Your task to perform on an android device: Clear the cart on bestbuy. Image 0: 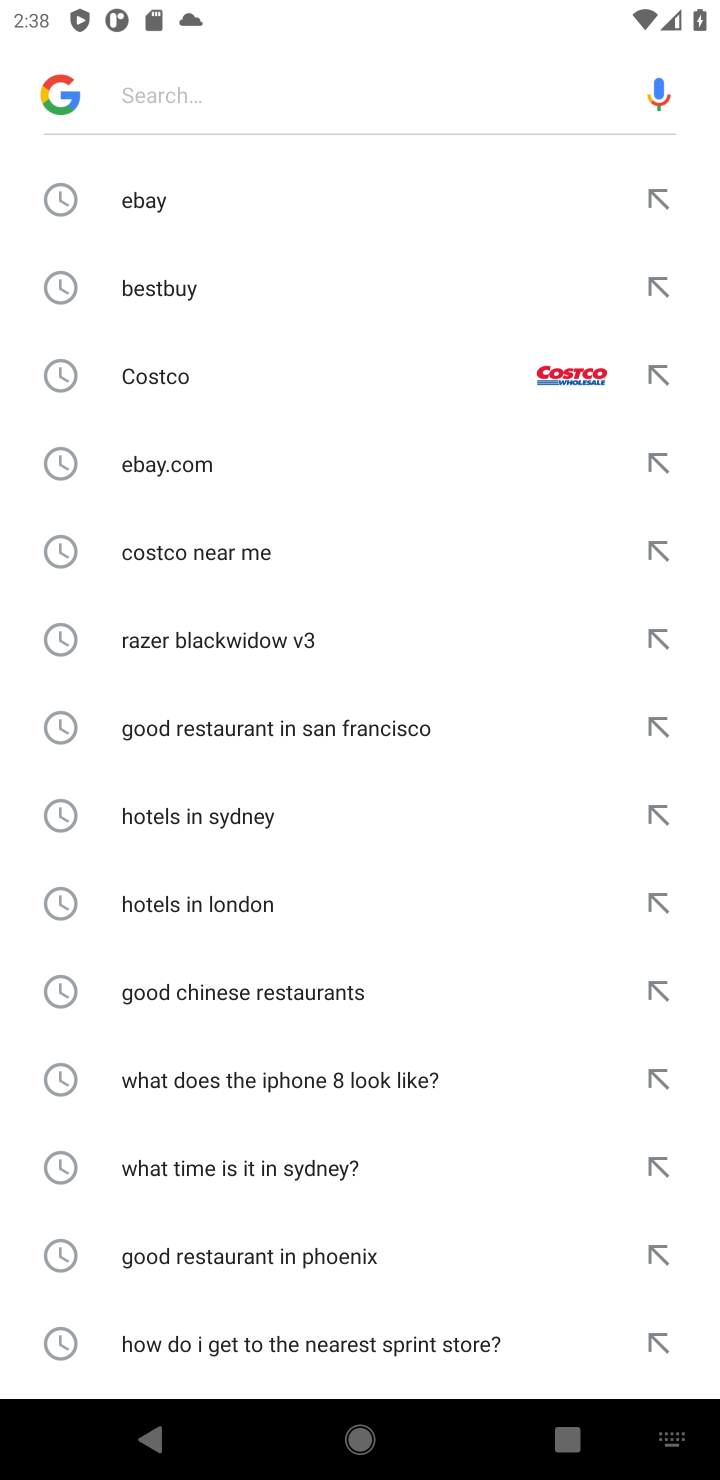
Step 0: press home button
Your task to perform on an android device: Clear the cart on bestbuy. Image 1: 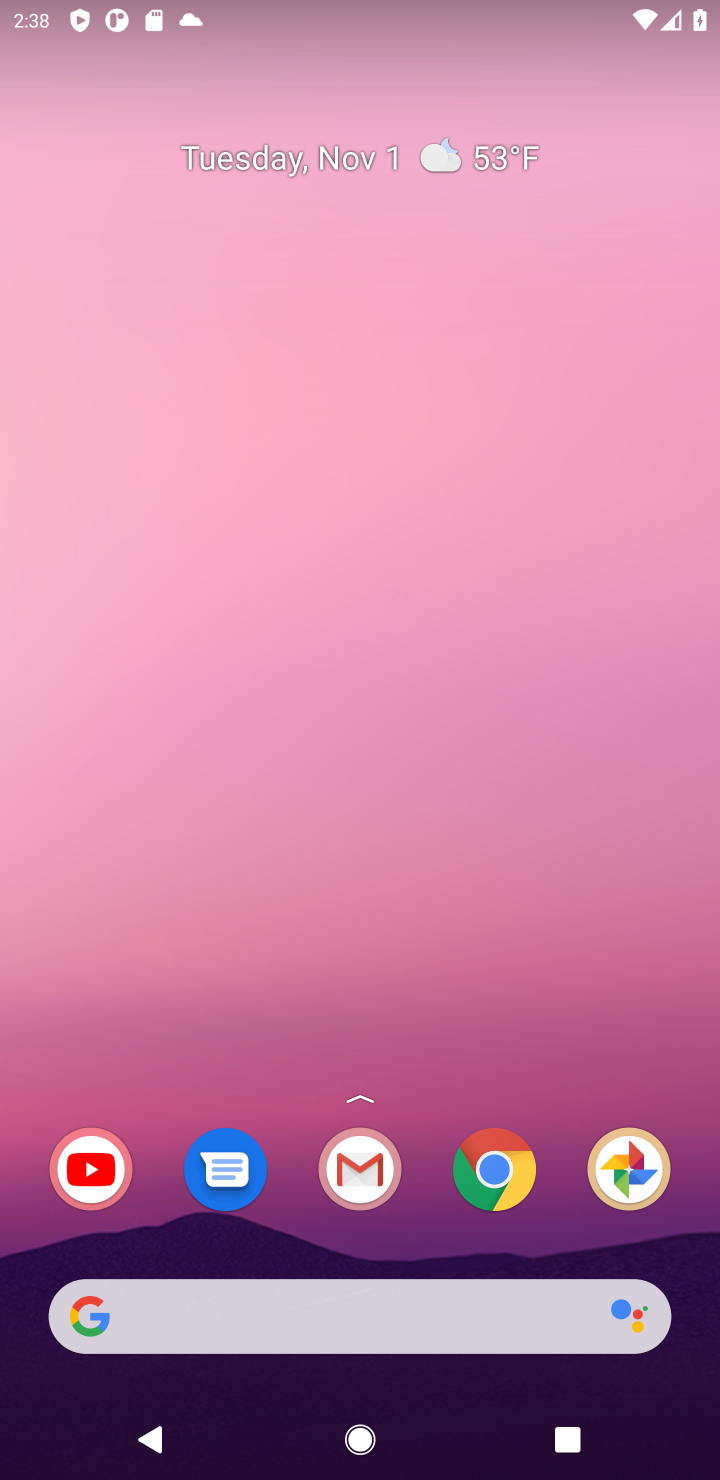
Step 1: click (522, 1181)
Your task to perform on an android device: Clear the cart on bestbuy. Image 2: 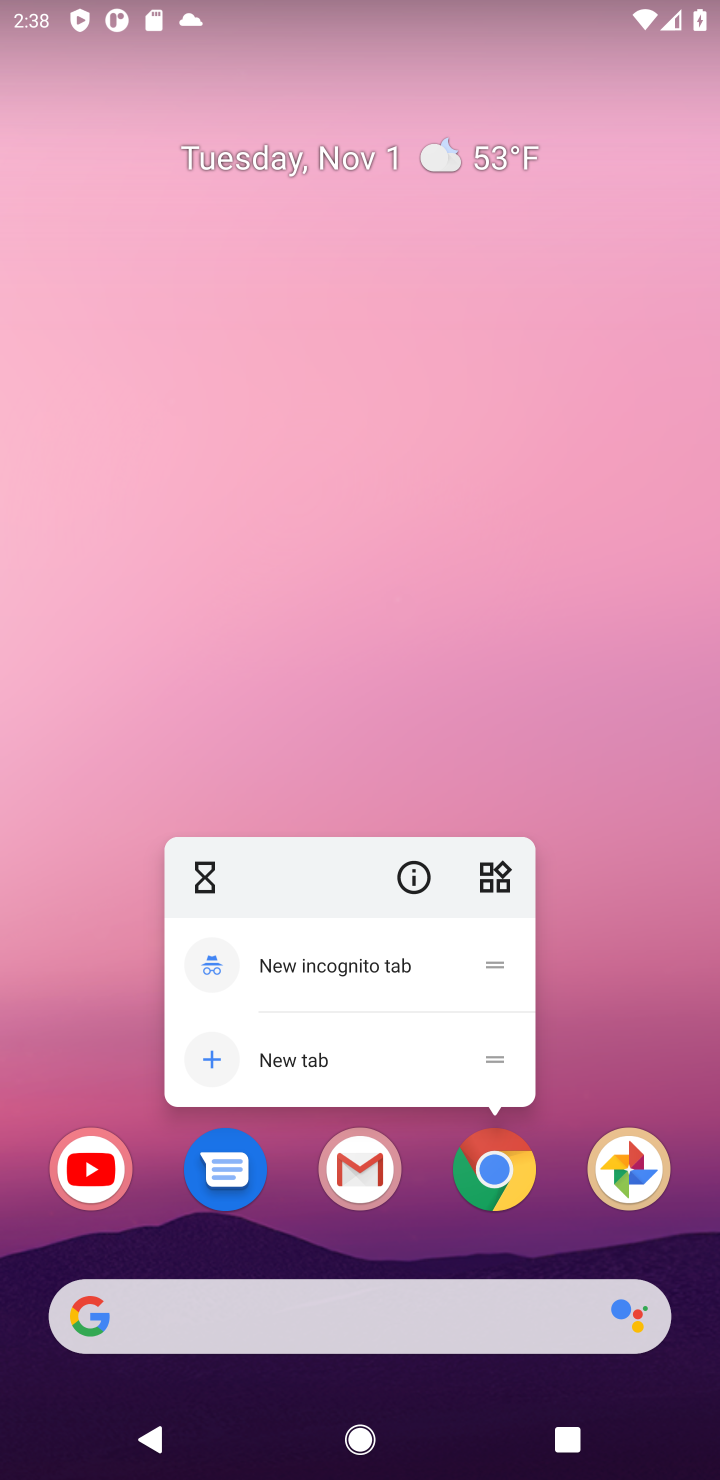
Step 2: click (502, 1177)
Your task to perform on an android device: Clear the cart on bestbuy. Image 3: 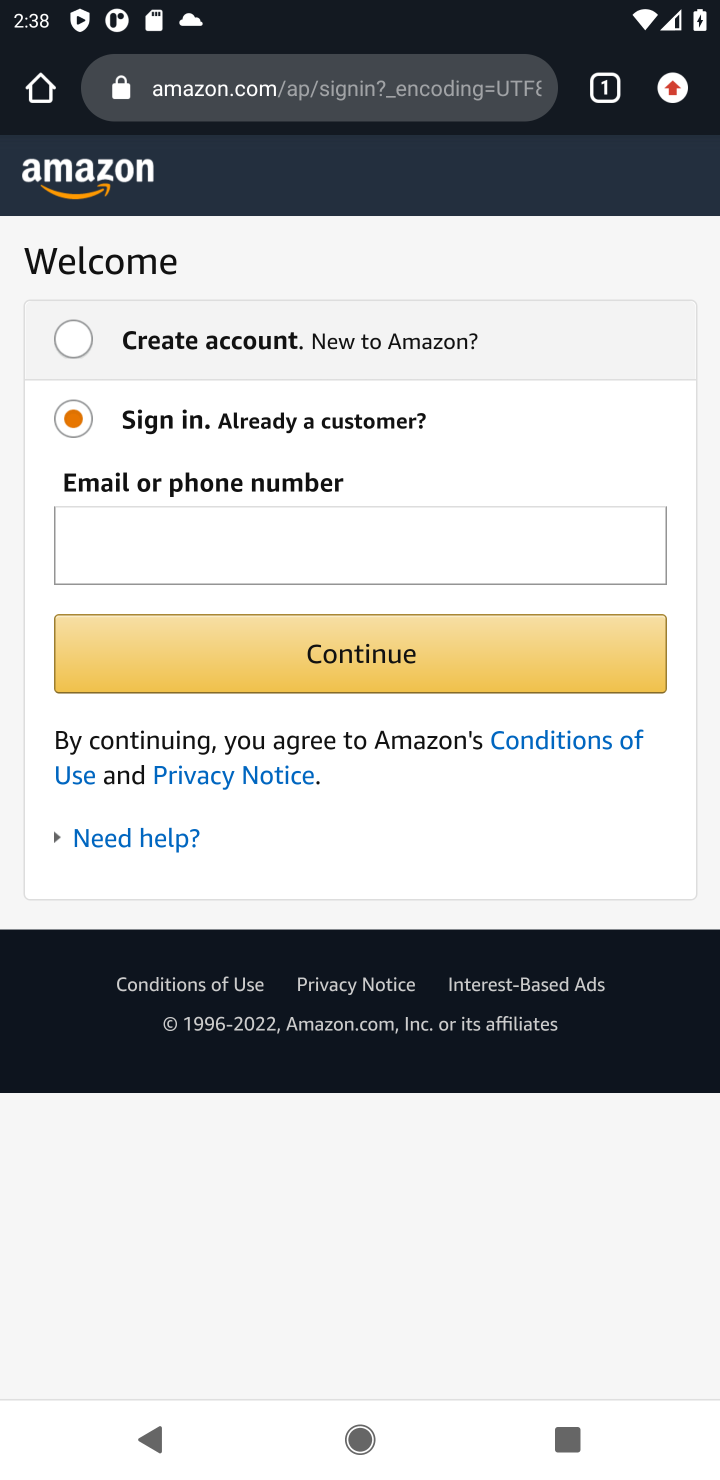
Step 3: click (274, 81)
Your task to perform on an android device: Clear the cart on bestbuy. Image 4: 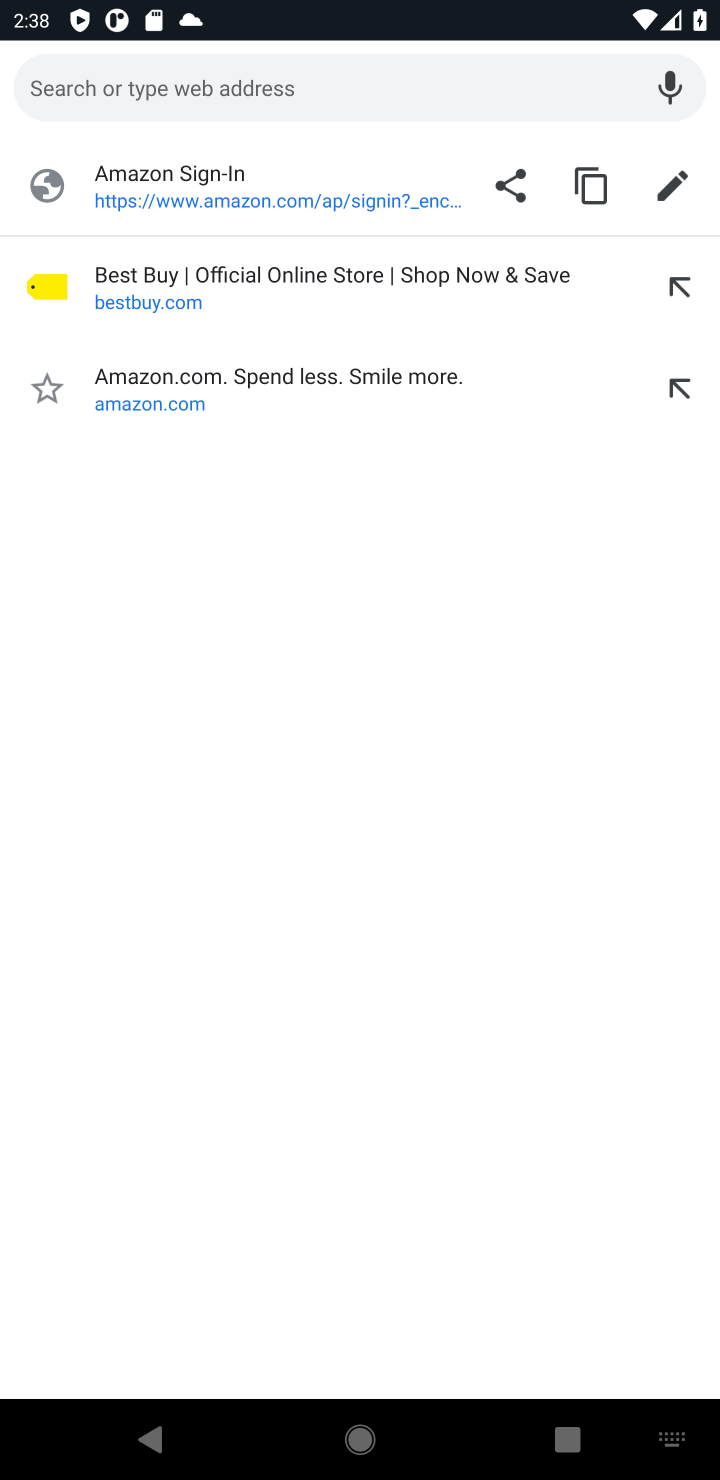
Step 4: click (220, 270)
Your task to perform on an android device: Clear the cart on bestbuy. Image 5: 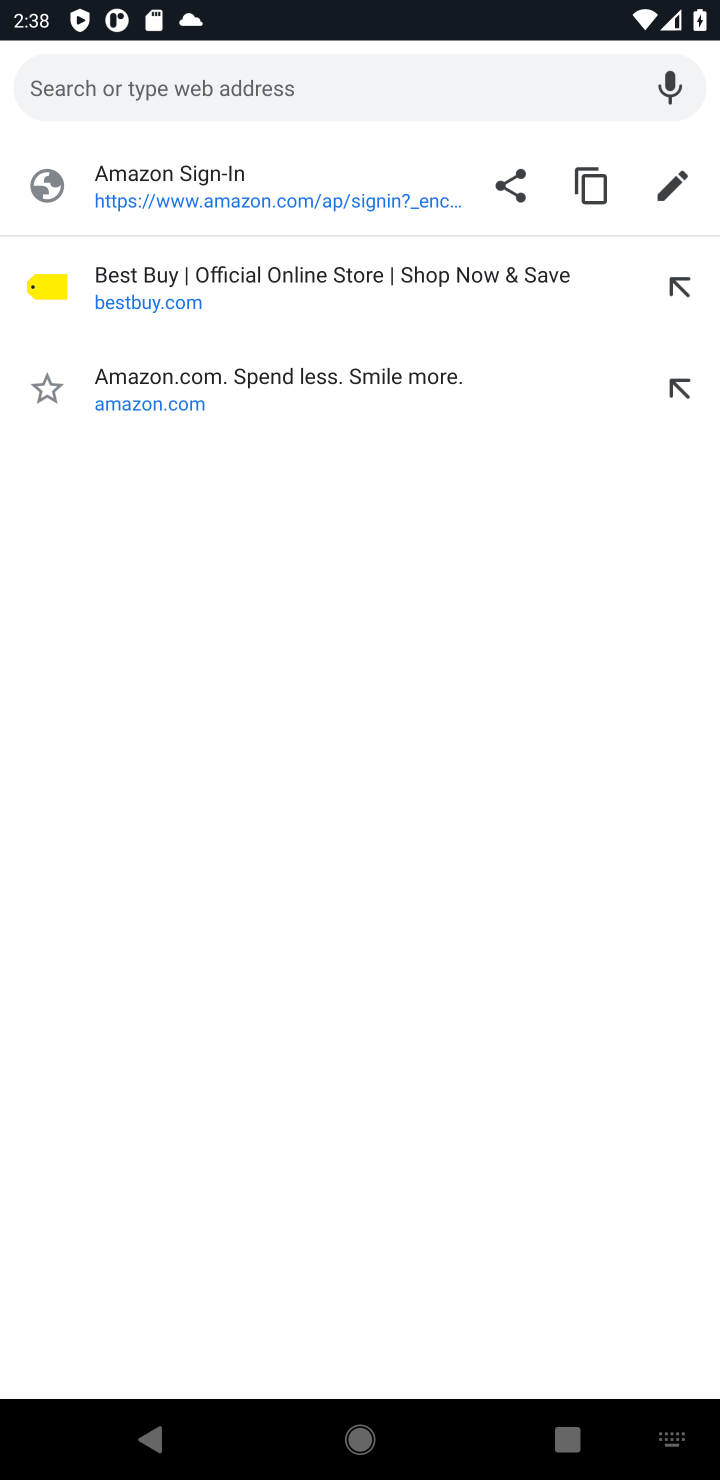
Step 5: click (220, 270)
Your task to perform on an android device: Clear the cart on bestbuy. Image 6: 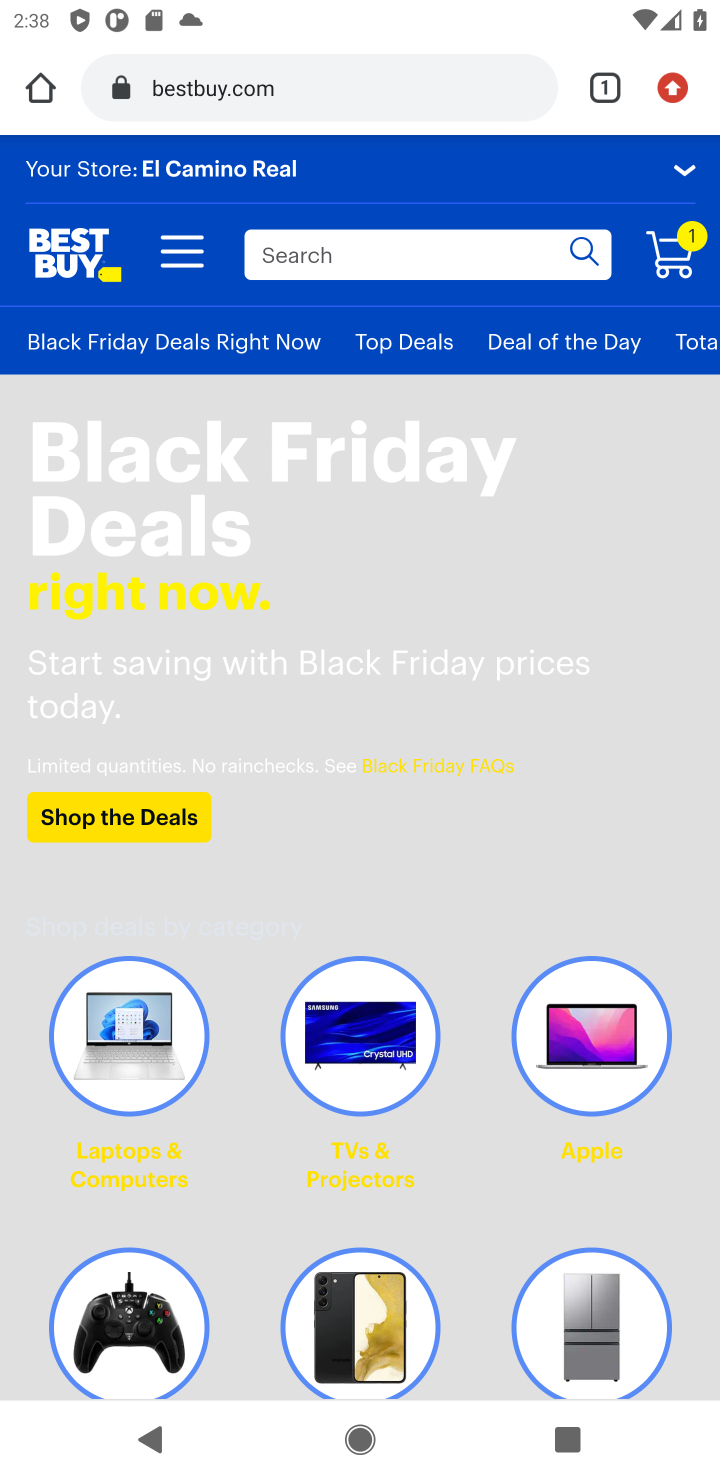
Step 6: click (371, 239)
Your task to perform on an android device: Clear the cart on bestbuy. Image 7: 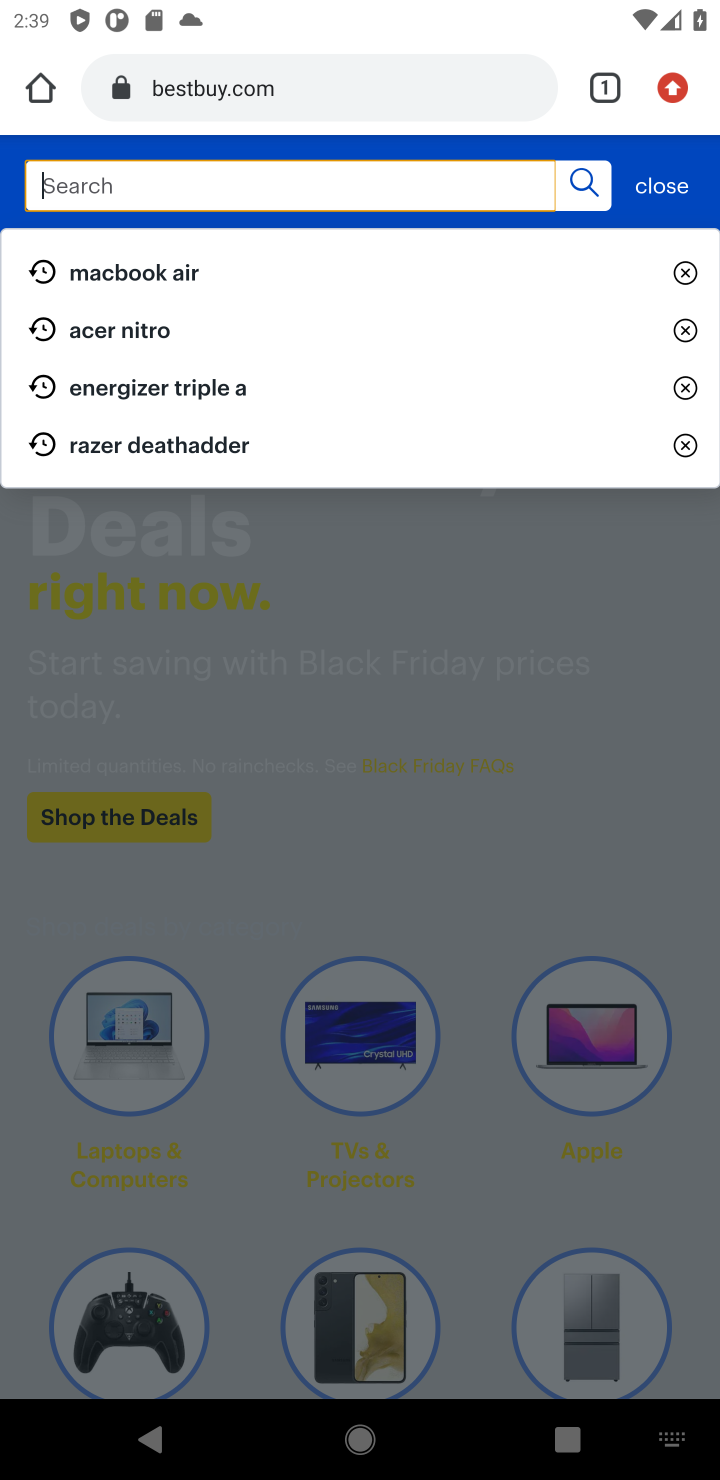
Step 7: click (651, 235)
Your task to perform on an android device: Clear the cart on bestbuy. Image 8: 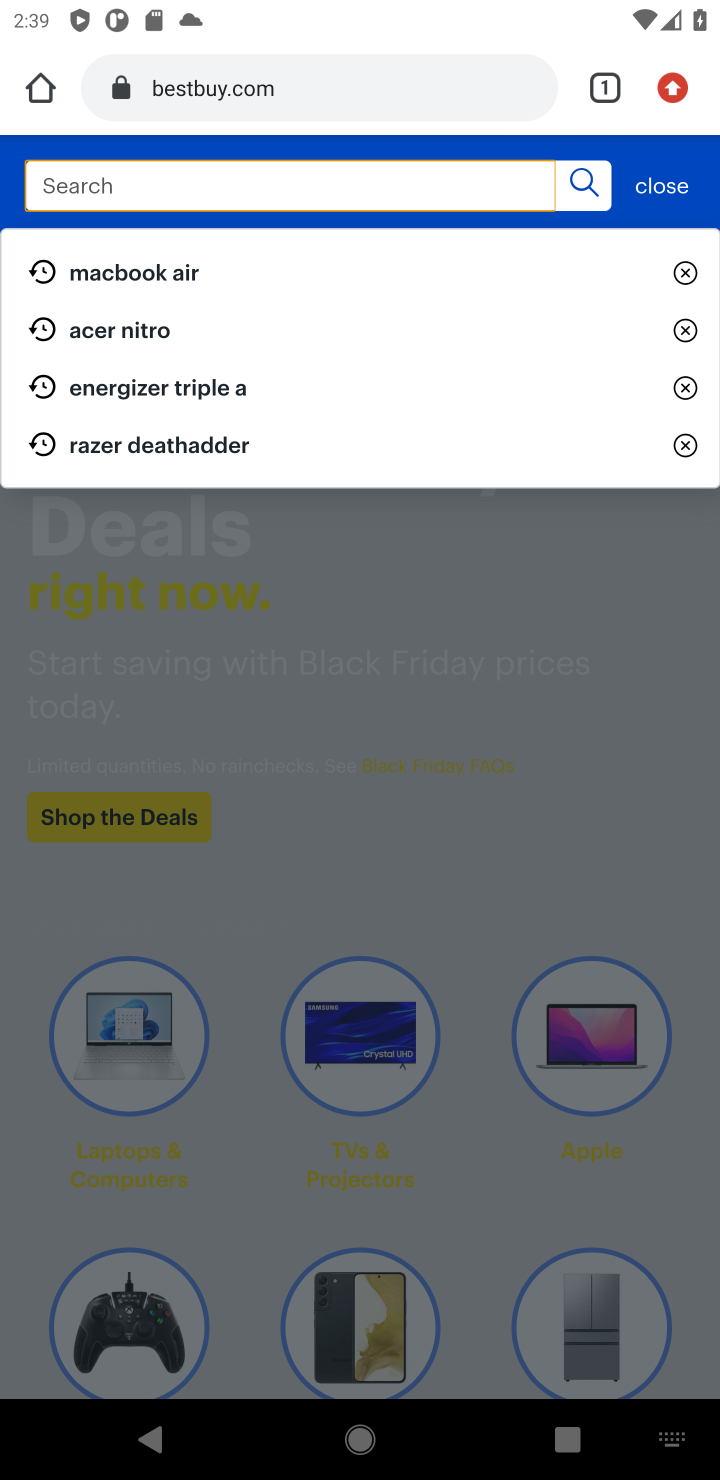
Step 8: click (655, 178)
Your task to perform on an android device: Clear the cart on bestbuy. Image 9: 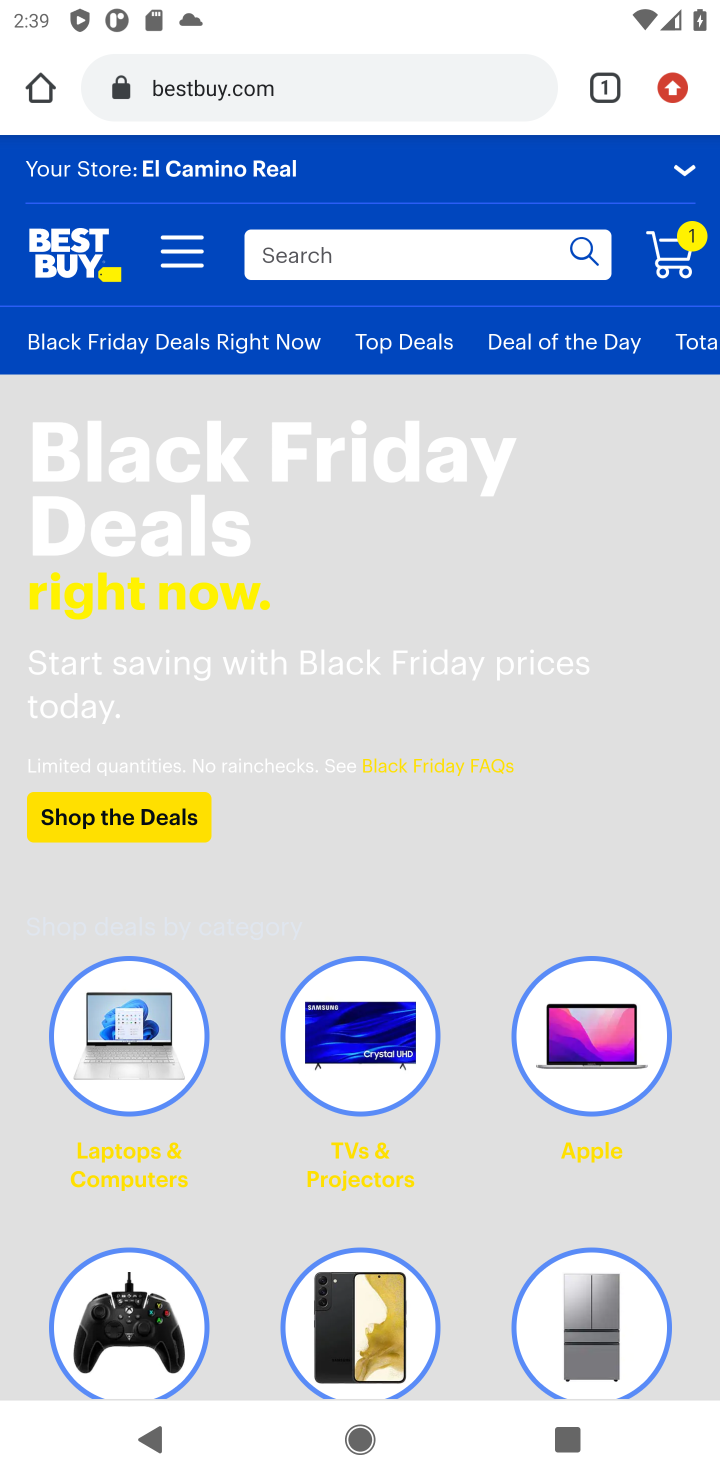
Step 9: click (662, 247)
Your task to perform on an android device: Clear the cart on bestbuy. Image 10: 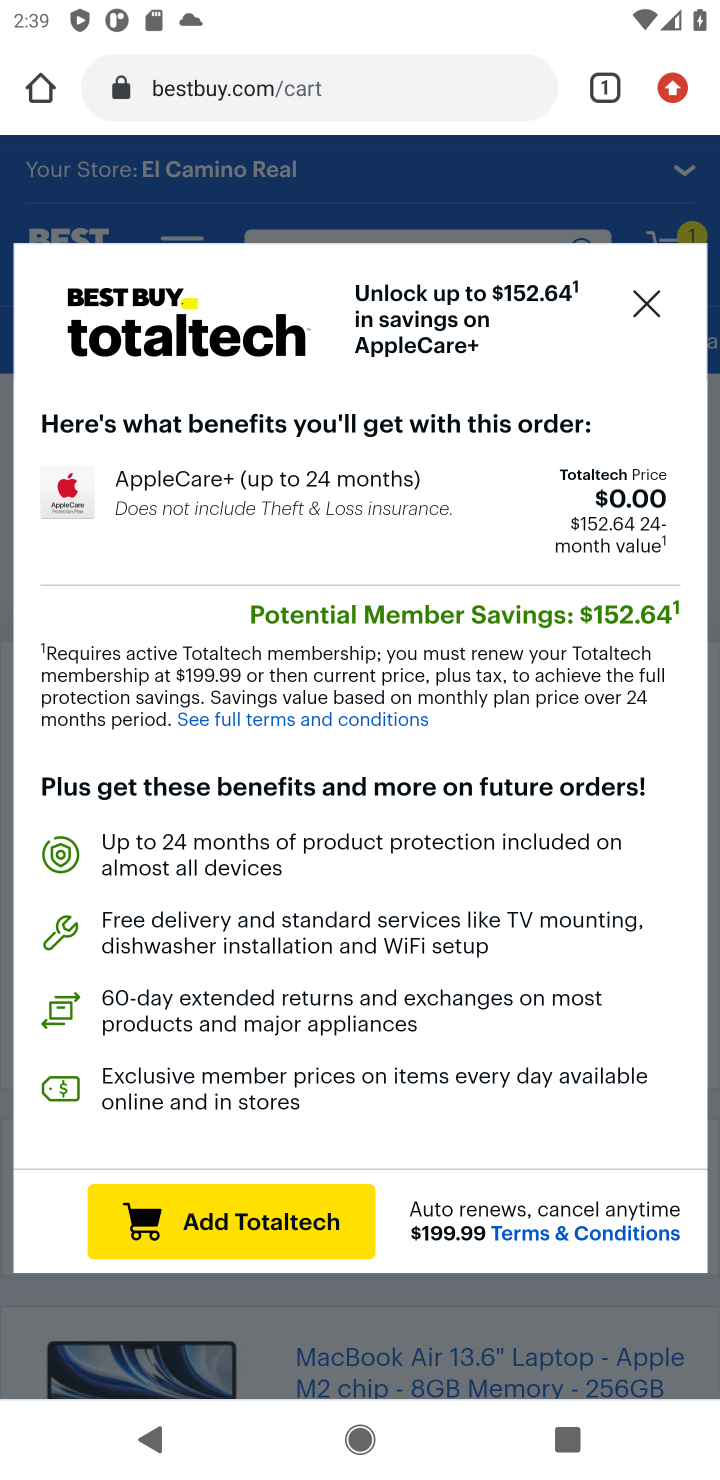
Step 10: click (653, 307)
Your task to perform on an android device: Clear the cart on bestbuy. Image 11: 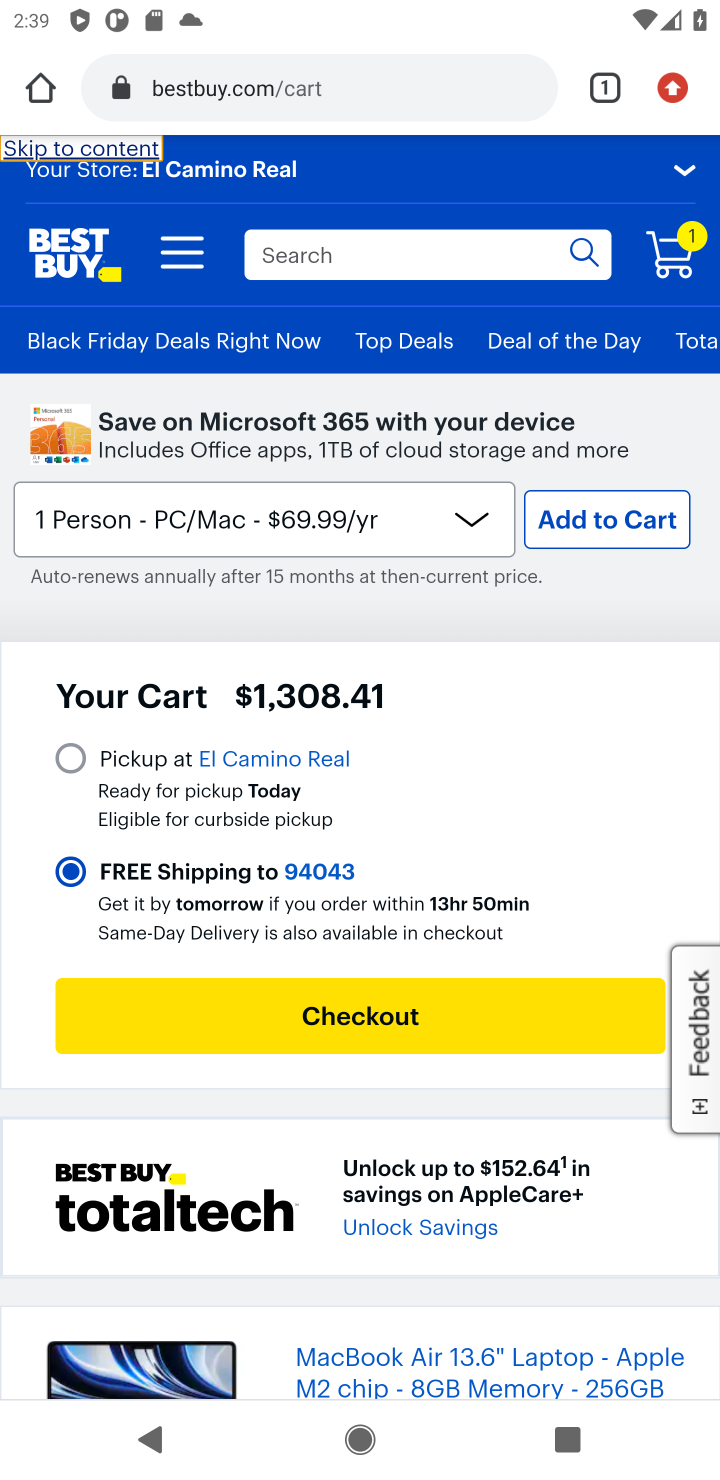
Step 11: drag from (304, 1304) to (147, 302)
Your task to perform on an android device: Clear the cart on bestbuy. Image 12: 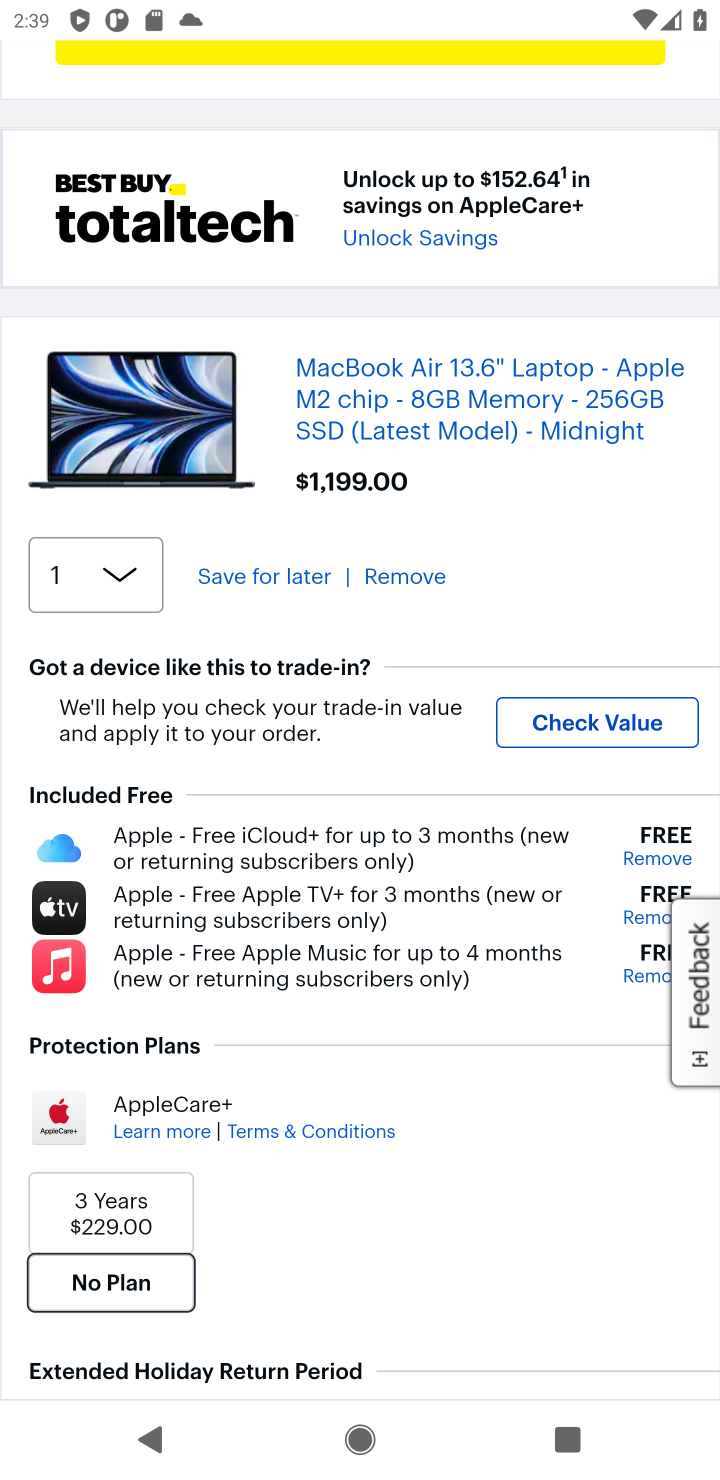
Step 12: click (414, 1286)
Your task to perform on an android device: Clear the cart on bestbuy. Image 13: 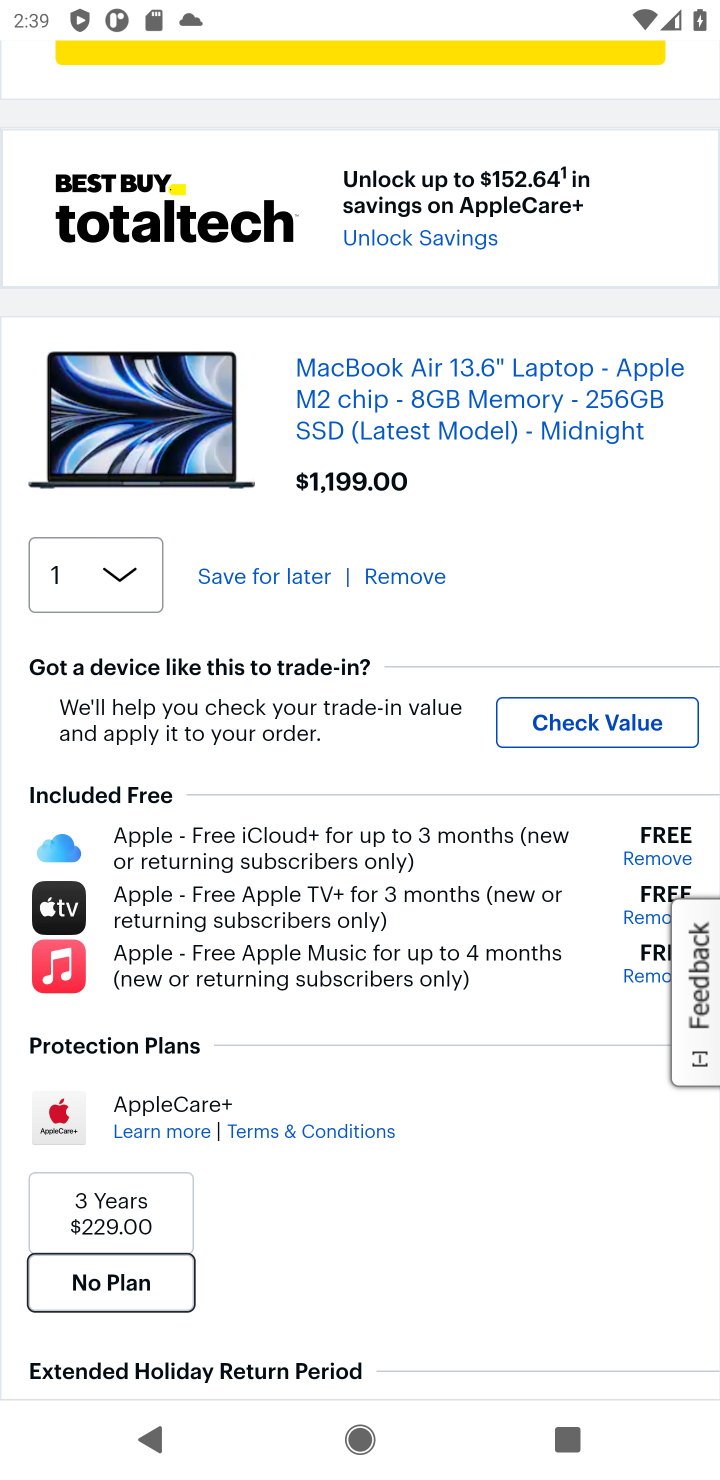
Step 13: click (378, 572)
Your task to perform on an android device: Clear the cart on bestbuy. Image 14: 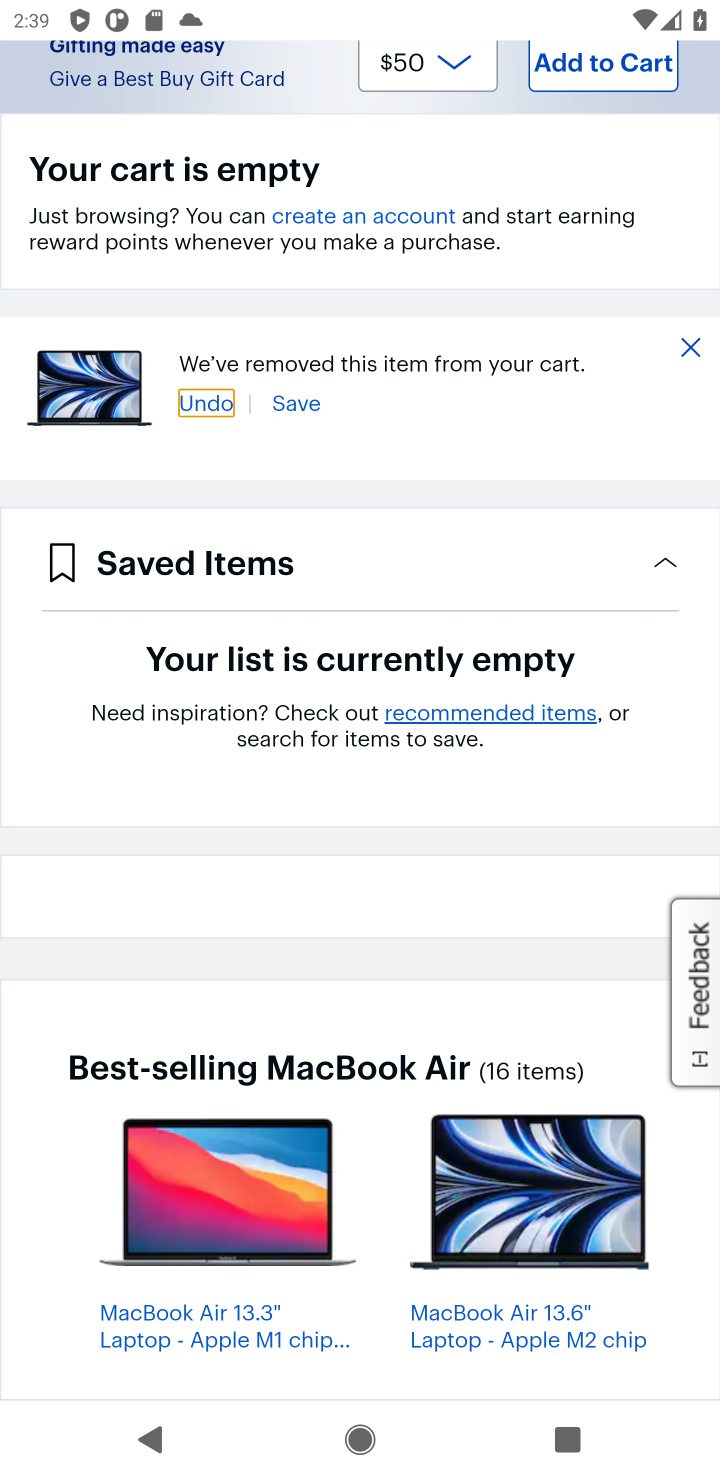
Step 14: task complete